Your task to perform on an android device: add a label to a message in the gmail app Image 0: 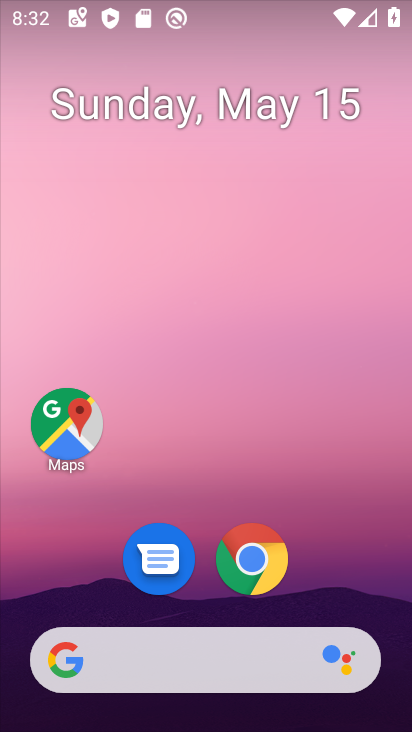
Step 0: drag from (333, 592) to (302, 147)
Your task to perform on an android device: add a label to a message in the gmail app Image 1: 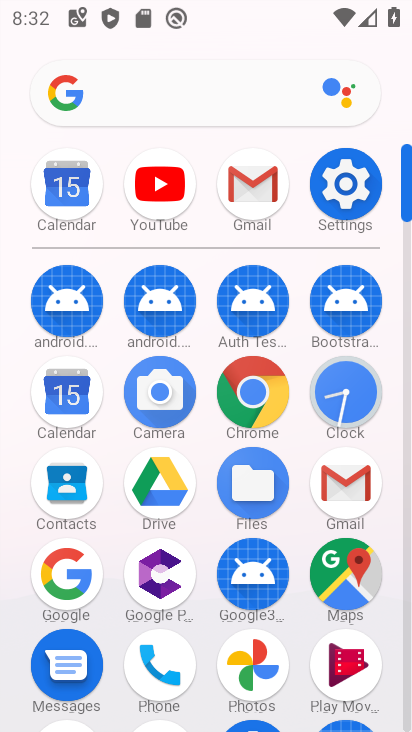
Step 1: click (330, 492)
Your task to perform on an android device: add a label to a message in the gmail app Image 2: 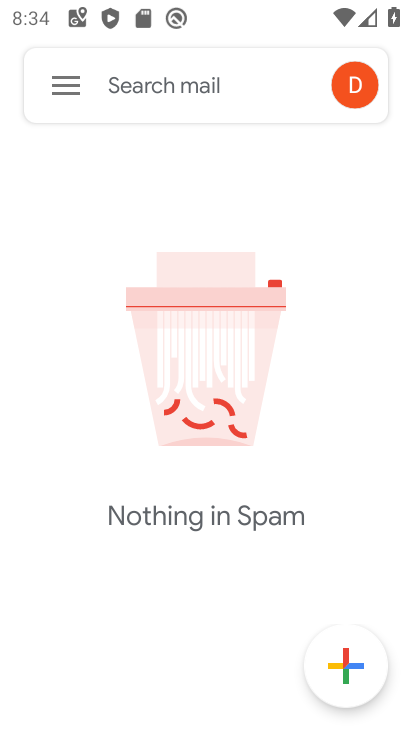
Step 2: click (71, 69)
Your task to perform on an android device: add a label to a message in the gmail app Image 3: 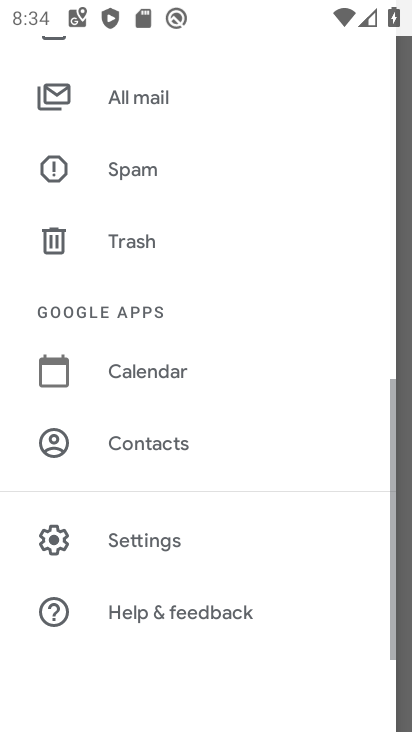
Step 3: task complete